Your task to perform on an android device: find photos in the google photos app Image 0: 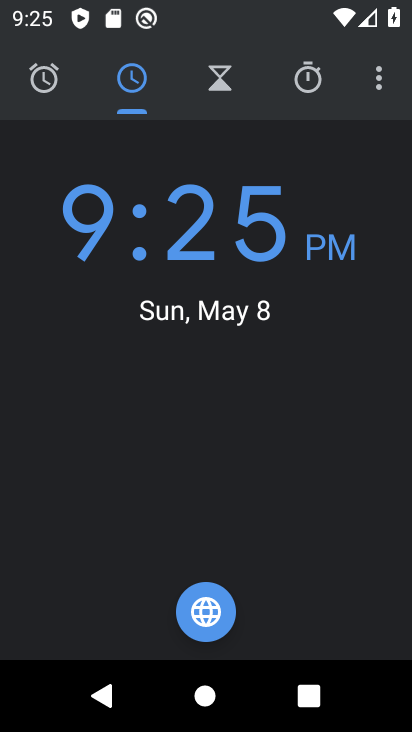
Step 0: press home button
Your task to perform on an android device: find photos in the google photos app Image 1: 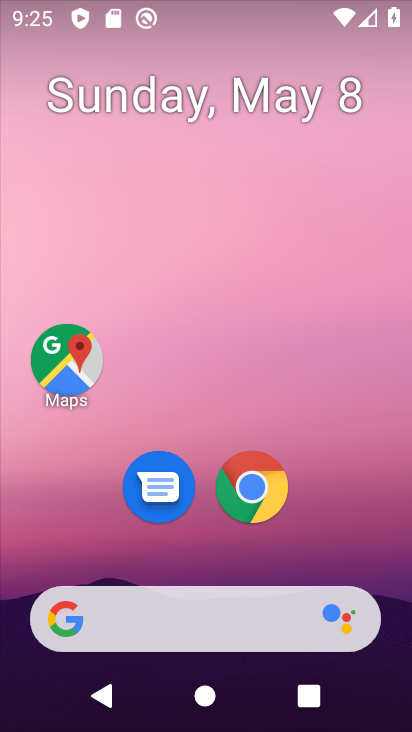
Step 1: click (236, 184)
Your task to perform on an android device: find photos in the google photos app Image 2: 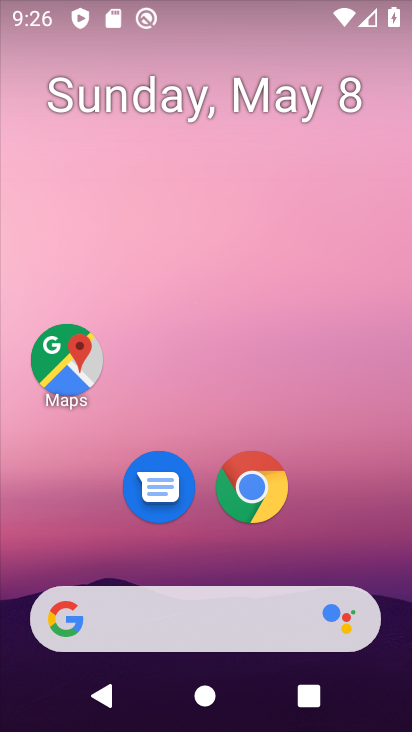
Step 2: drag from (210, 583) to (336, 62)
Your task to perform on an android device: find photos in the google photos app Image 3: 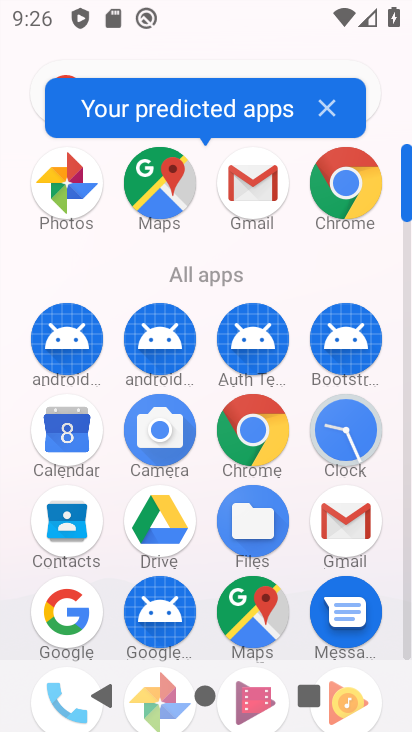
Step 3: drag from (163, 626) to (241, 364)
Your task to perform on an android device: find photos in the google photos app Image 4: 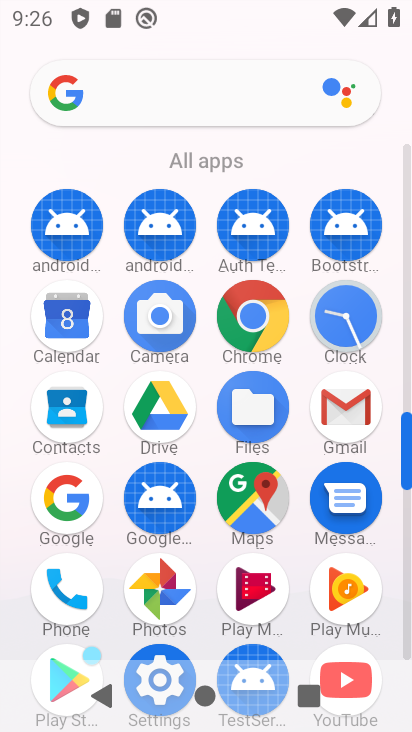
Step 4: click (181, 568)
Your task to perform on an android device: find photos in the google photos app Image 5: 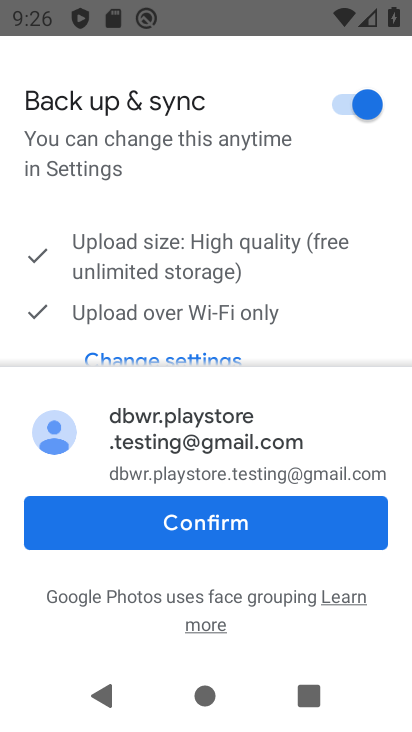
Step 5: click (214, 534)
Your task to perform on an android device: find photos in the google photos app Image 6: 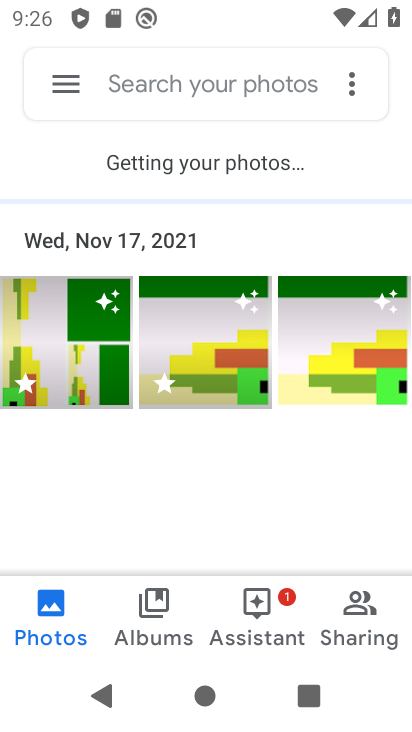
Step 6: task complete